Your task to perform on an android device: turn pop-ups on in chrome Image 0: 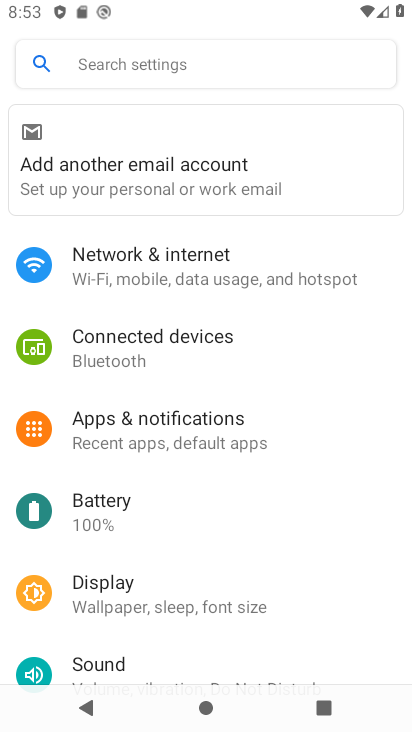
Step 0: press home button
Your task to perform on an android device: turn pop-ups on in chrome Image 1: 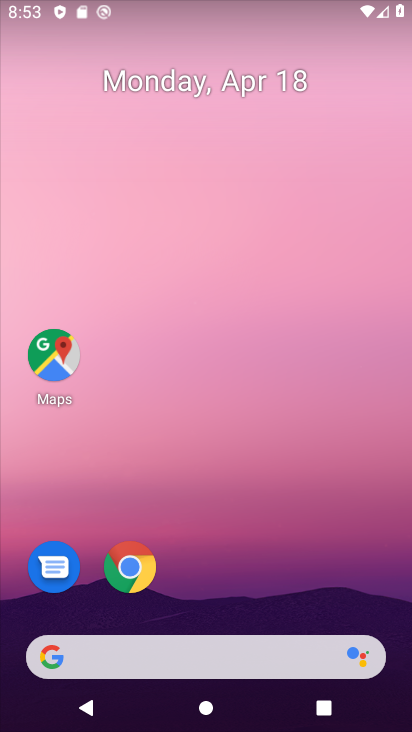
Step 1: click (134, 571)
Your task to perform on an android device: turn pop-ups on in chrome Image 2: 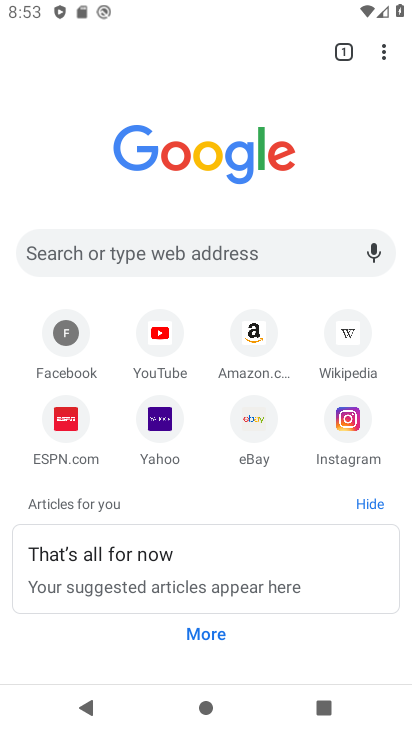
Step 2: click (386, 45)
Your task to perform on an android device: turn pop-ups on in chrome Image 3: 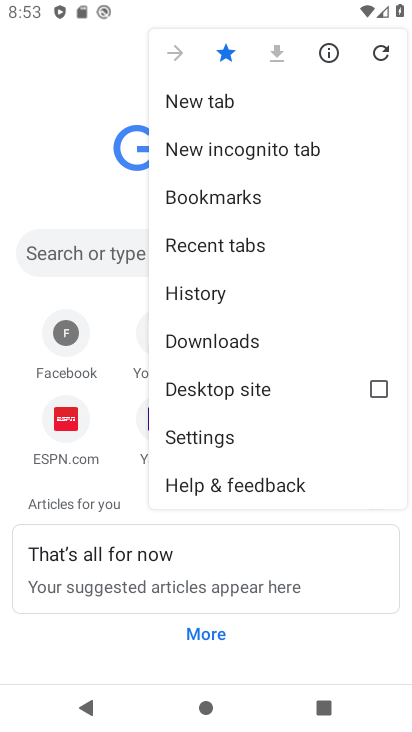
Step 3: click (235, 437)
Your task to perform on an android device: turn pop-ups on in chrome Image 4: 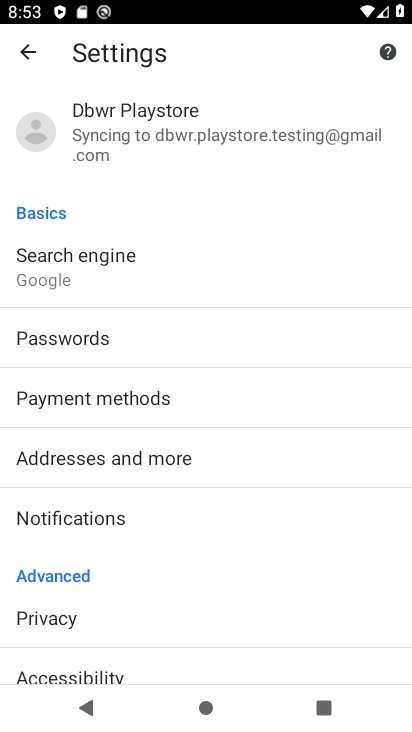
Step 4: drag from (140, 599) to (181, 237)
Your task to perform on an android device: turn pop-ups on in chrome Image 5: 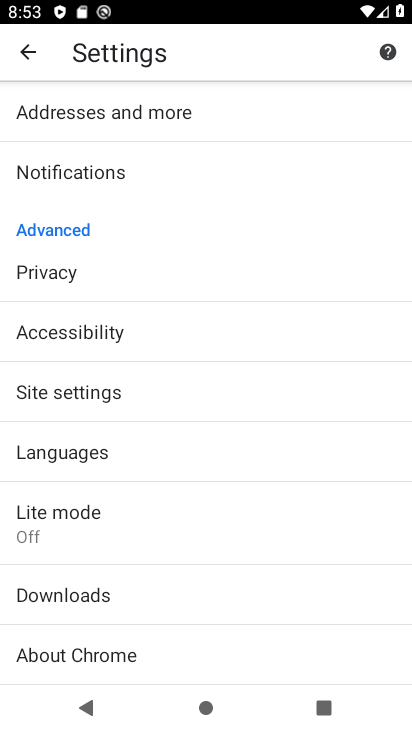
Step 5: click (131, 394)
Your task to perform on an android device: turn pop-ups on in chrome Image 6: 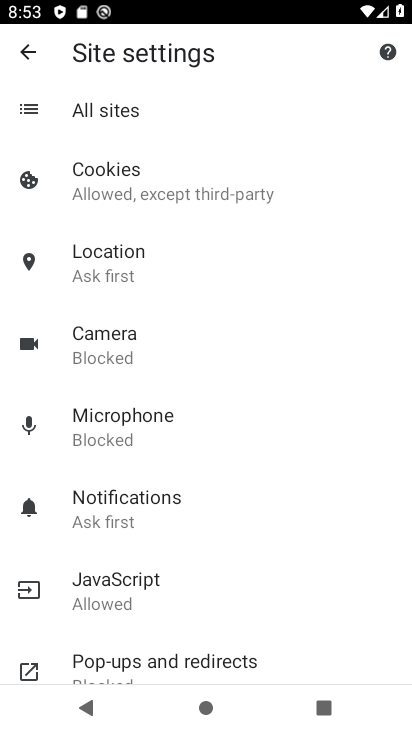
Step 6: drag from (170, 609) to (197, 362)
Your task to perform on an android device: turn pop-ups on in chrome Image 7: 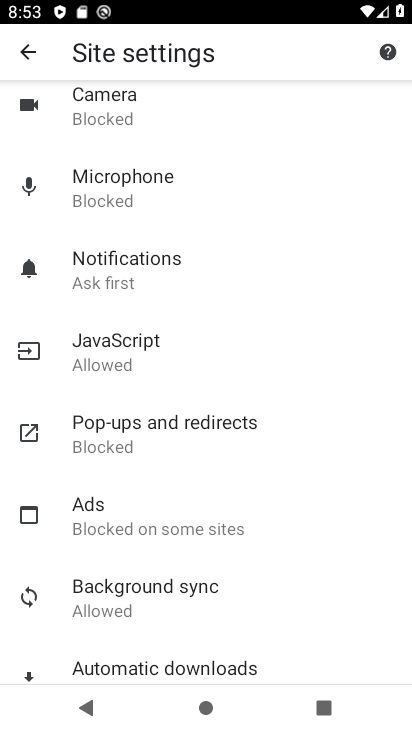
Step 7: click (160, 438)
Your task to perform on an android device: turn pop-ups on in chrome Image 8: 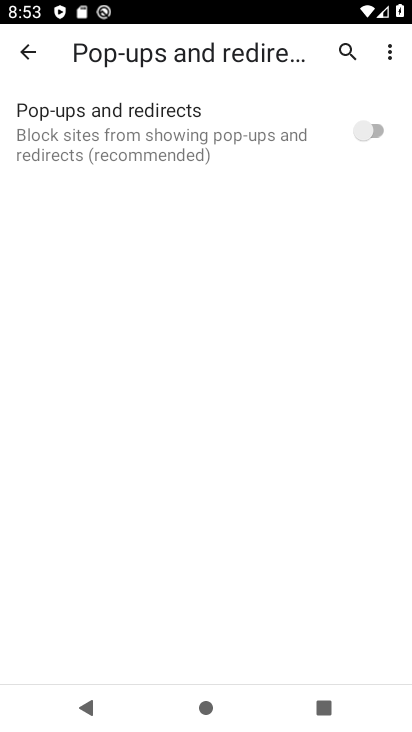
Step 8: click (361, 127)
Your task to perform on an android device: turn pop-ups on in chrome Image 9: 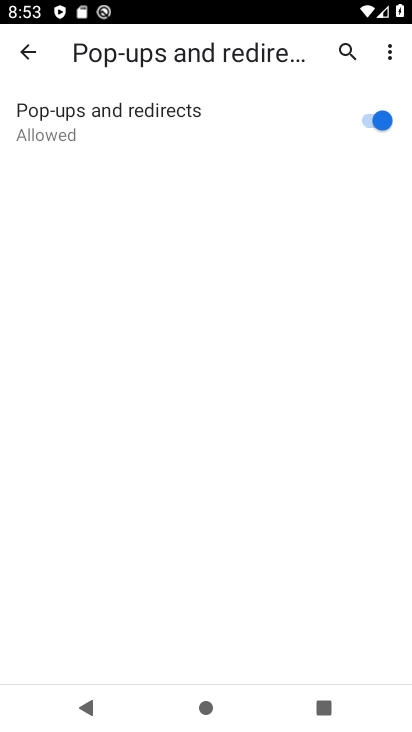
Step 9: task complete